Your task to perform on an android device: Go to Amazon Image 0: 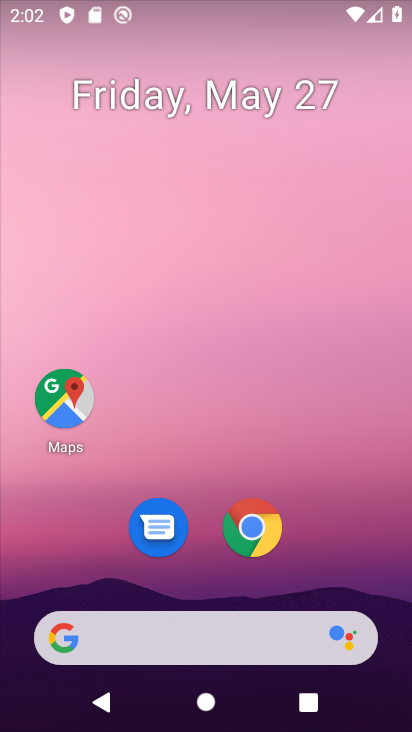
Step 0: click (233, 521)
Your task to perform on an android device: Go to Amazon Image 1: 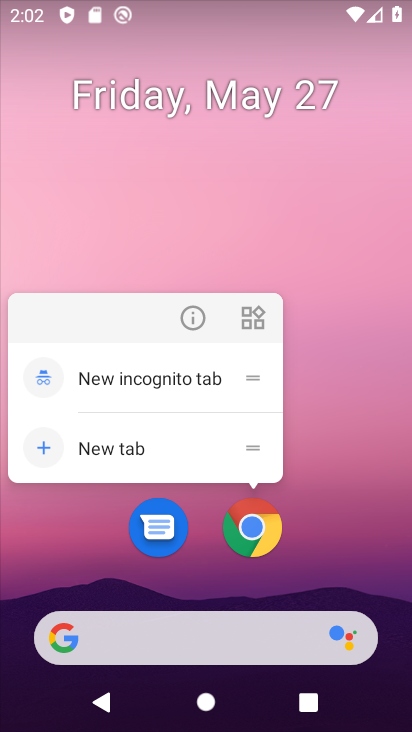
Step 1: click (254, 529)
Your task to perform on an android device: Go to Amazon Image 2: 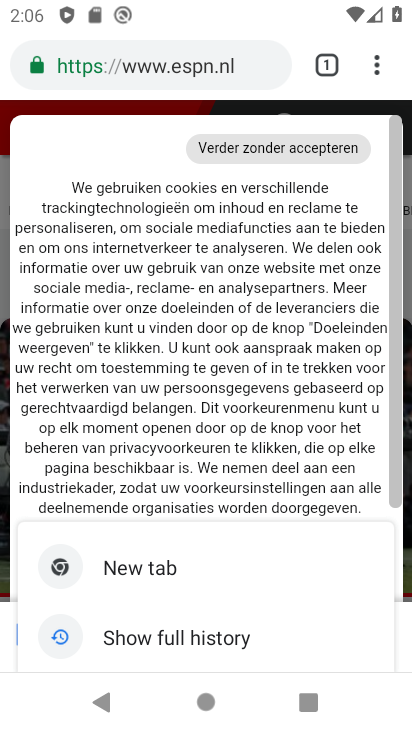
Step 2: click (325, 62)
Your task to perform on an android device: Go to Amazon Image 3: 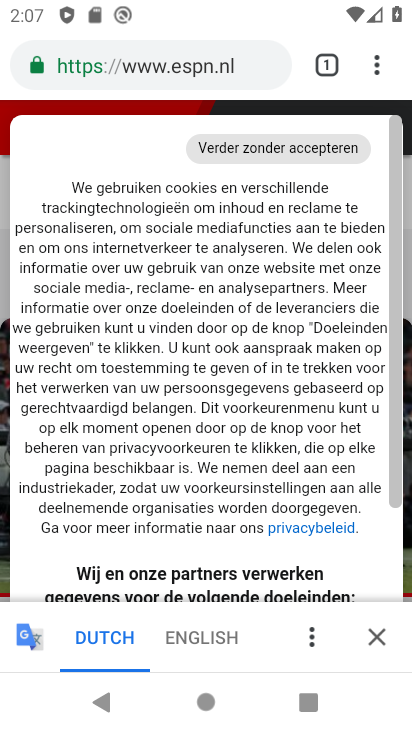
Step 3: click (339, 42)
Your task to perform on an android device: Go to Amazon Image 4: 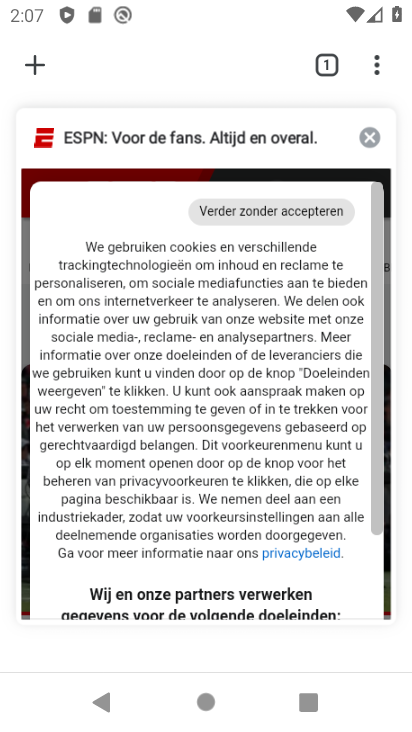
Step 4: click (377, 140)
Your task to perform on an android device: Go to Amazon Image 5: 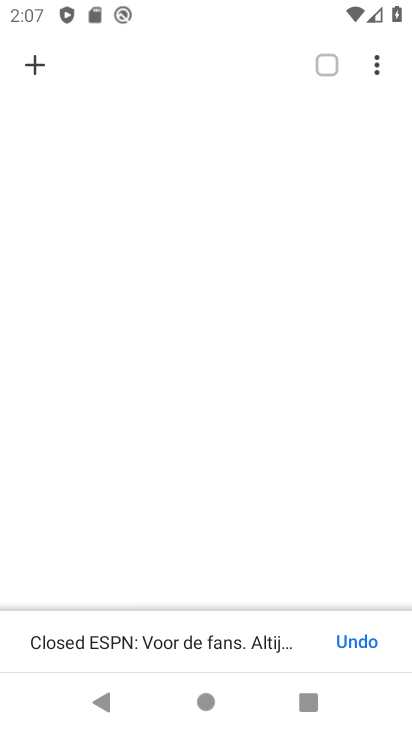
Step 5: click (28, 67)
Your task to perform on an android device: Go to Amazon Image 6: 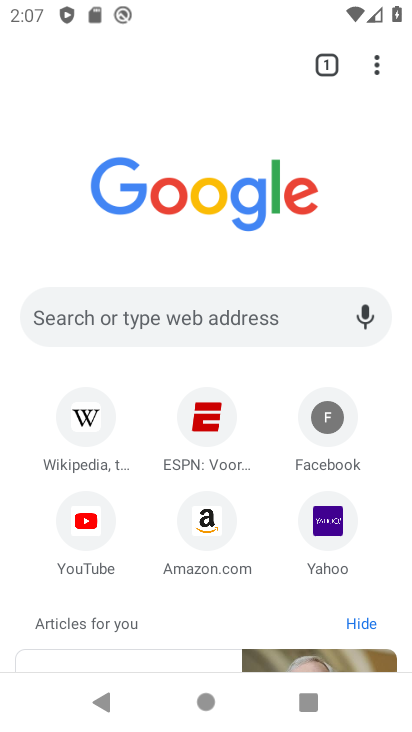
Step 6: click (199, 524)
Your task to perform on an android device: Go to Amazon Image 7: 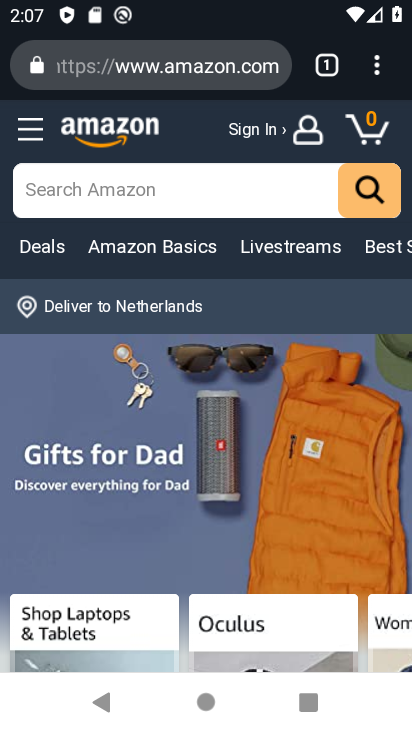
Step 7: task complete